Your task to perform on an android device: make emails show in primary in the gmail app Image 0: 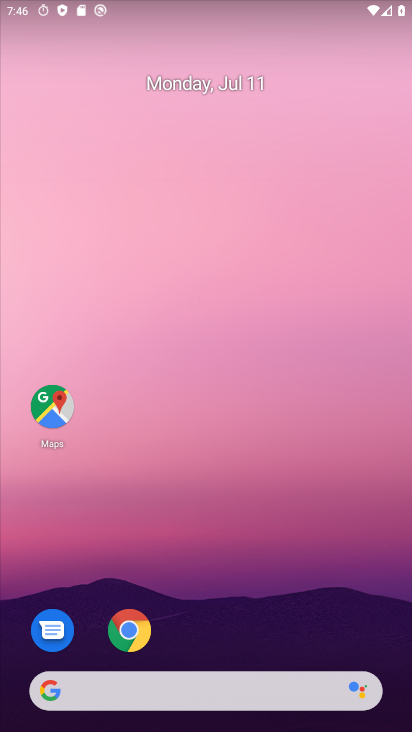
Step 0: drag from (161, 680) to (278, 271)
Your task to perform on an android device: make emails show in primary in the gmail app Image 1: 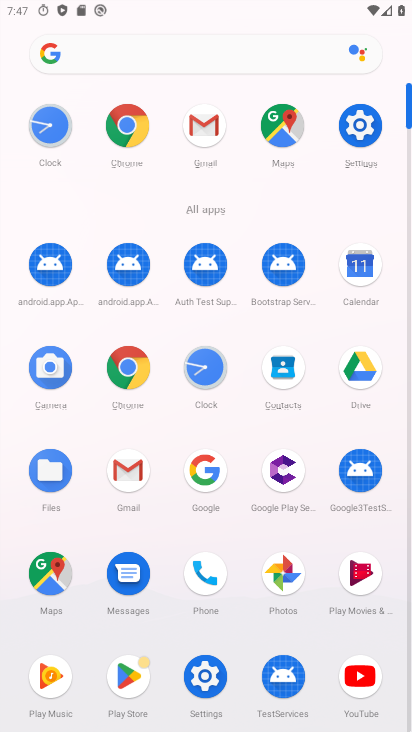
Step 1: click (208, 132)
Your task to perform on an android device: make emails show in primary in the gmail app Image 2: 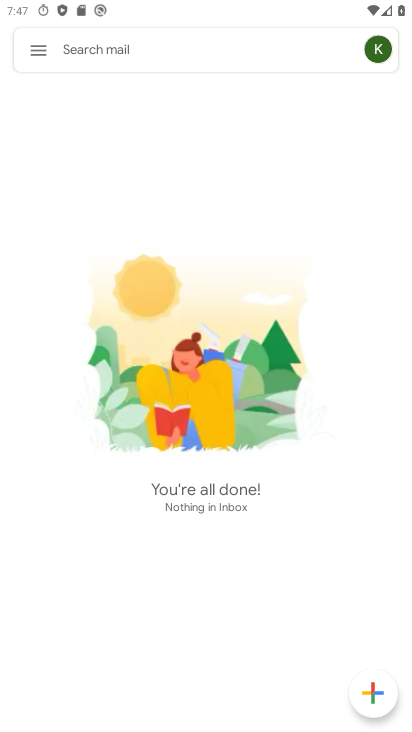
Step 2: click (34, 47)
Your task to perform on an android device: make emails show in primary in the gmail app Image 3: 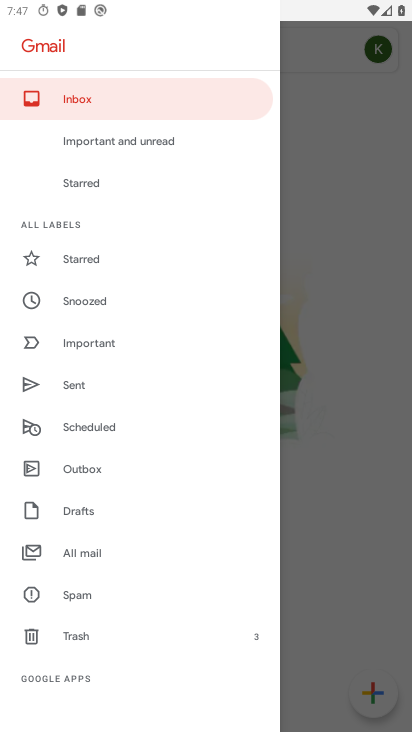
Step 3: drag from (108, 641) to (189, 231)
Your task to perform on an android device: make emails show in primary in the gmail app Image 4: 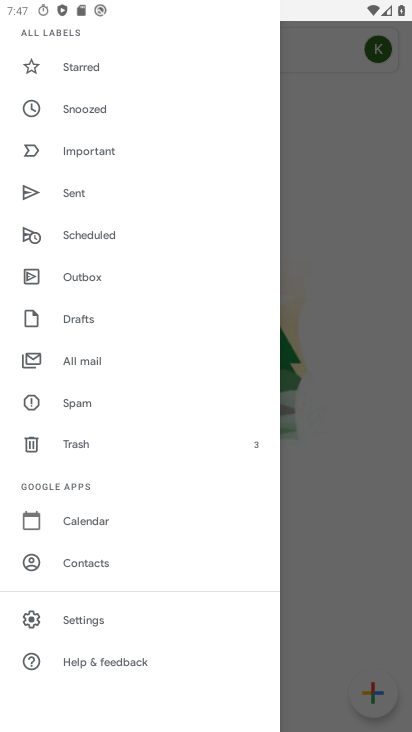
Step 4: click (102, 625)
Your task to perform on an android device: make emails show in primary in the gmail app Image 5: 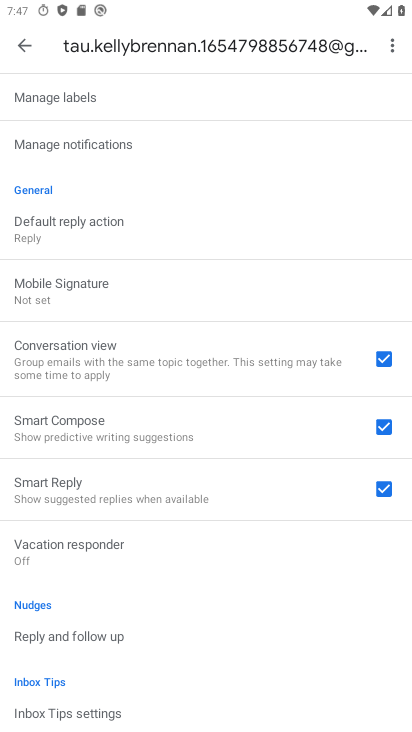
Step 5: drag from (249, 198) to (142, 619)
Your task to perform on an android device: make emails show in primary in the gmail app Image 6: 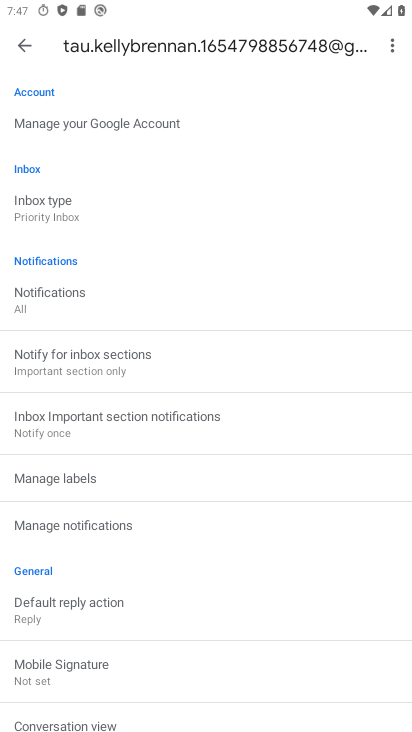
Step 6: click (109, 366)
Your task to perform on an android device: make emails show in primary in the gmail app Image 7: 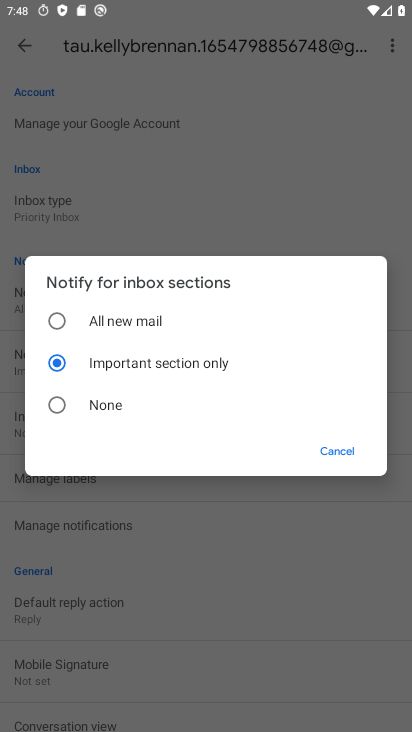
Step 7: click (338, 451)
Your task to perform on an android device: make emails show in primary in the gmail app Image 8: 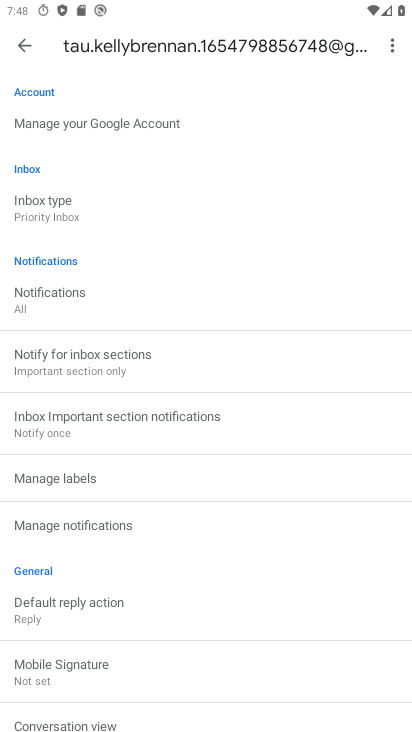
Step 8: drag from (177, 439) to (157, 541)
Your task to perform on an android device: make emails show in primary in the gmail app Image 9: 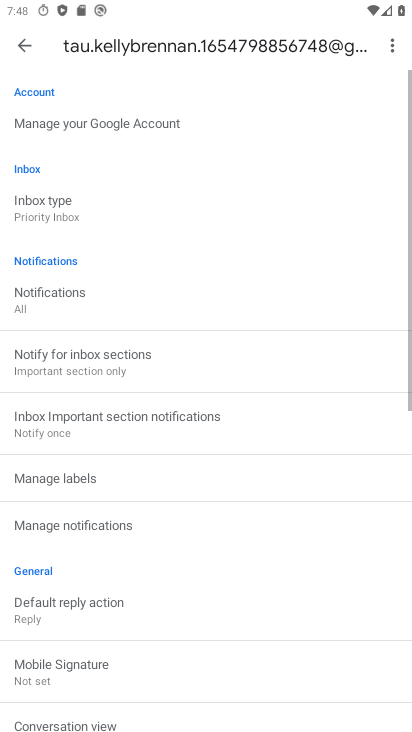
Step 9: drag from (138, 592) to (166, 487)
Your task to perform on an android device: make emails show in primary in the gmail app Image 10: 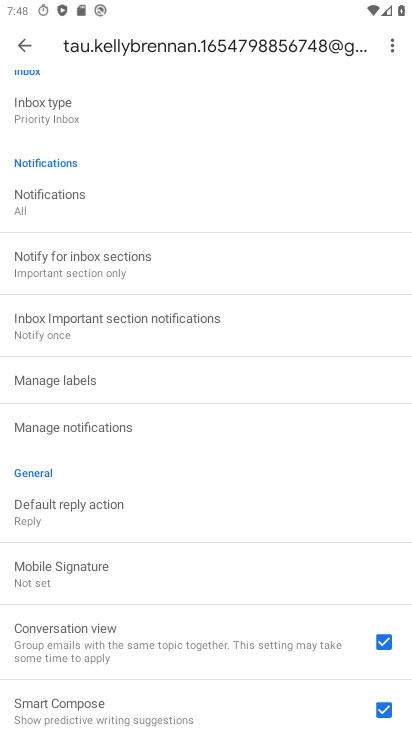
Step 10: click (117, 265)
Your task to perform on an android device: make emails show in primary in the gmail app Image 11: 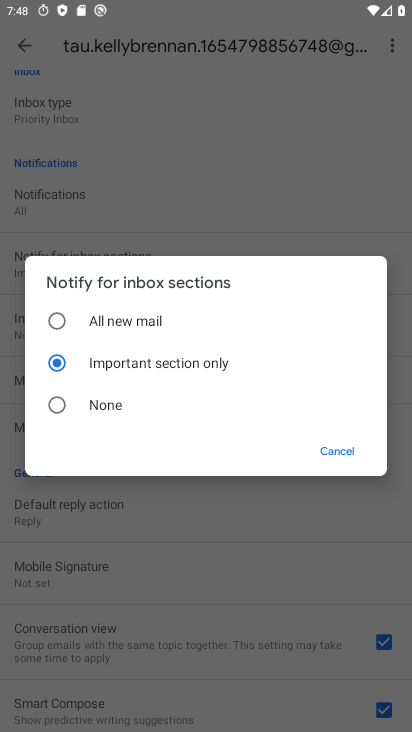
Step 11: click (60, 318)
Your task to perform on an android device: make emails show in primary in the gmail app Image 12: 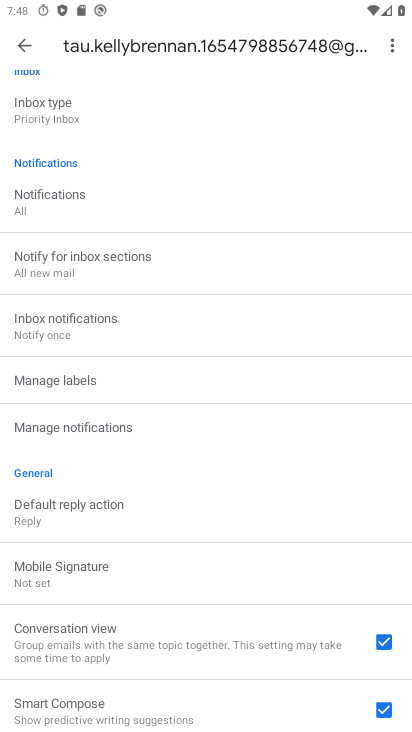
Step 12: task complete